Your task to perform on an android device: set the timer Image 0: 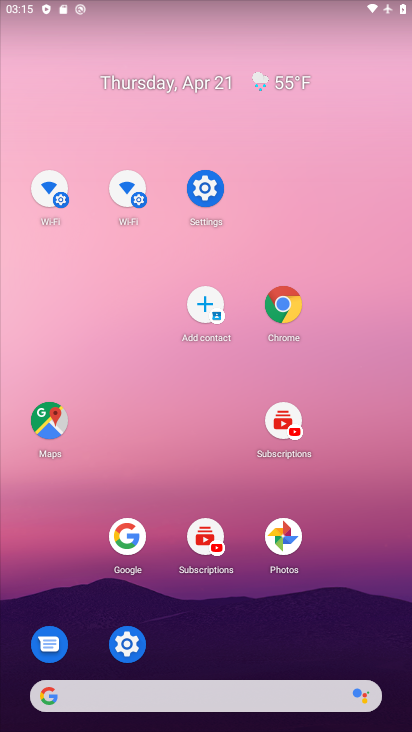
Step 0: drag from (303, 656) to (123, 137)
Your task to perform on an android device: set the timer Image 1: 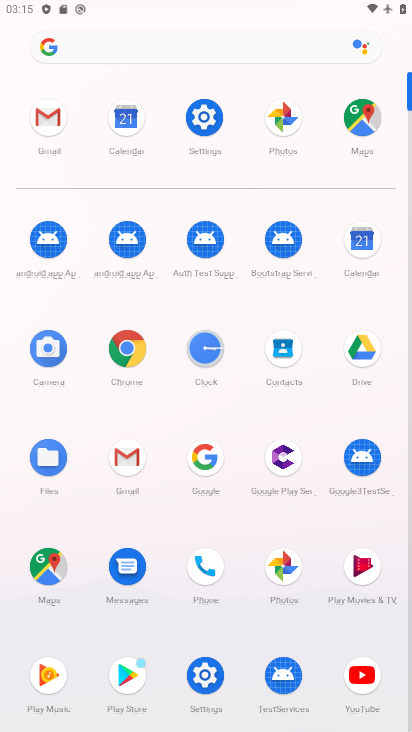
Step 1: click (199, 343)
Your task to perform on an android device: set the timer Image 2: 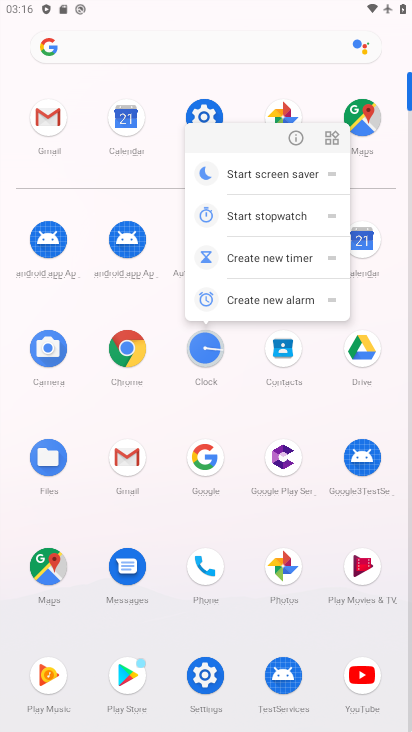
Step 2: click (205, 345)
Your task to perform on an android device: set the timer Image 3: 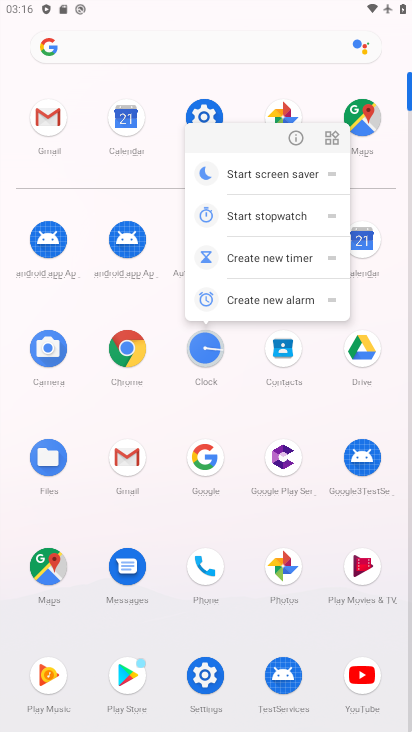
Step 3: click (211, 343)
Your task to perform on an android device: set the timer Image 4: 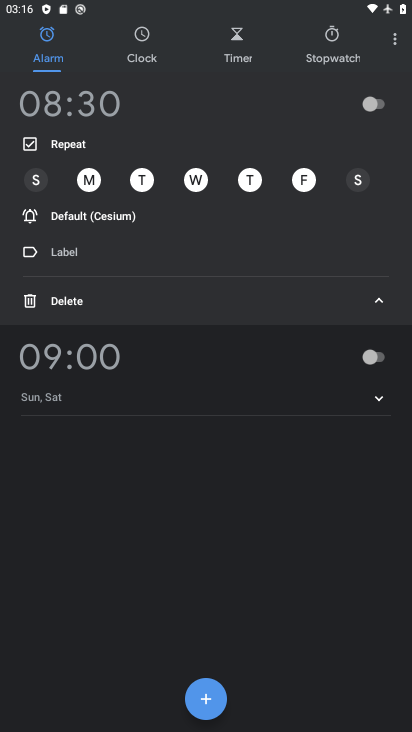
Step 4: drag from (243, 460) to (251, 523)
Your task to perform on an android device: set the timer Image 5: 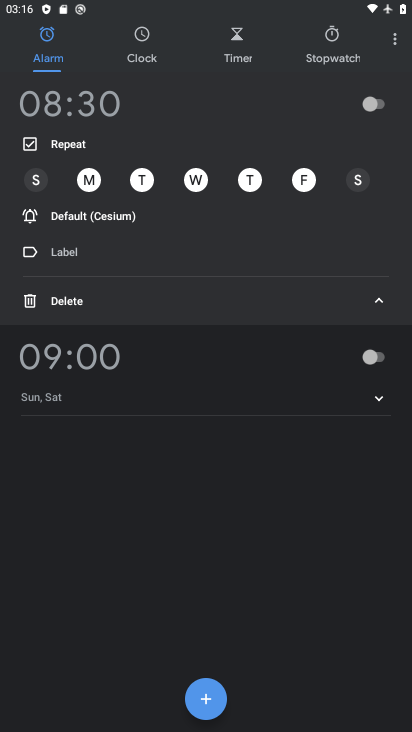
Step 5: click (236, 55)
Your task to perform on an android device: set the timer Image 6: 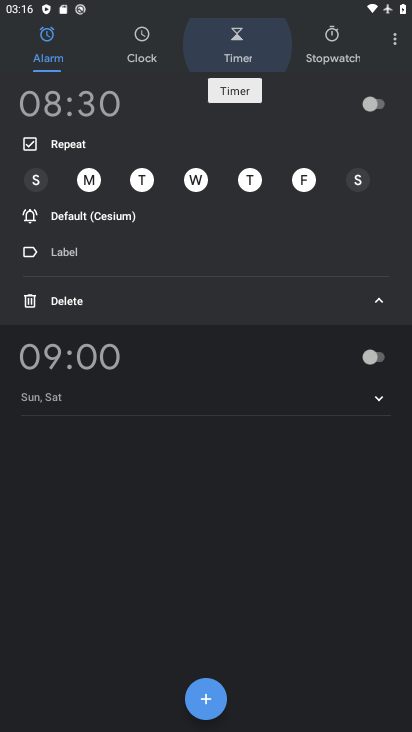
Step 6: click (236, 55)
Your task to perform on an android device: set the timer Image 7: 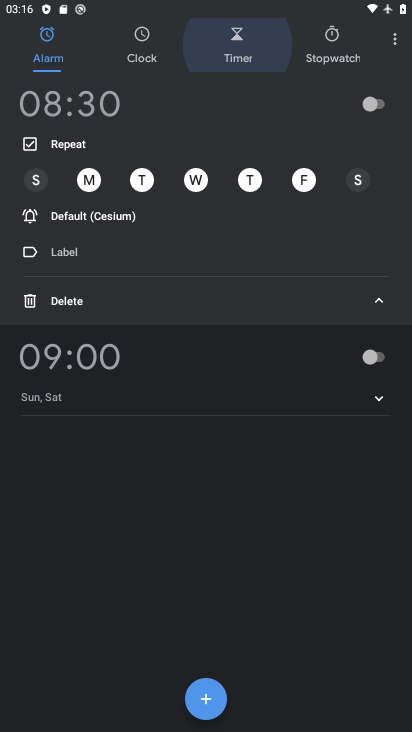
Step 7: click (236, 55)
Your task to perform on an android device: set the timer Image 8: 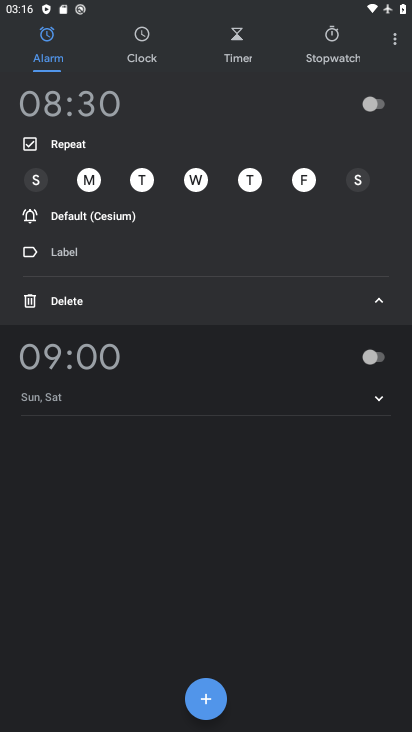
Step 8: drag from (241, 50) to (292, 516)
Your task to perform on an android device: set the timer Image 9: 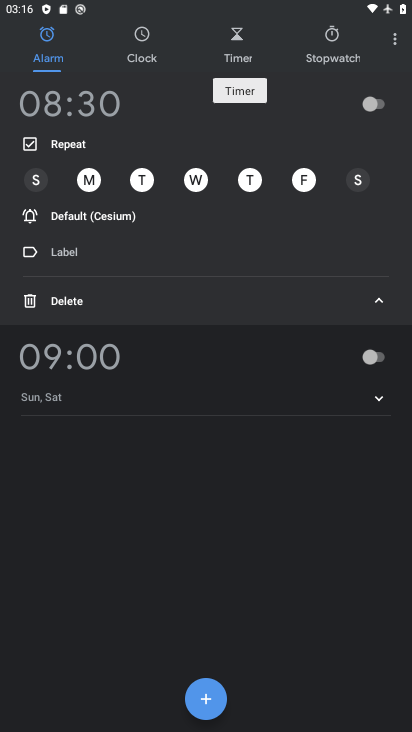
Step 9: click (230, 106)
Your task to perform on an android device: set the timer Image 10: 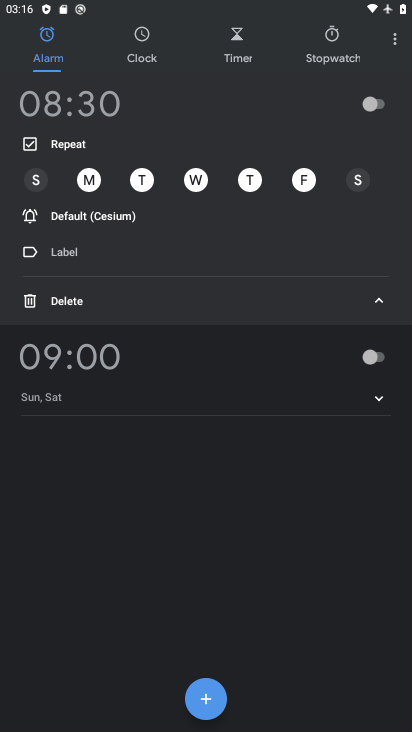
Step 10: click (241, 72)
Your task to perform on an android device: set the timer Image 11: 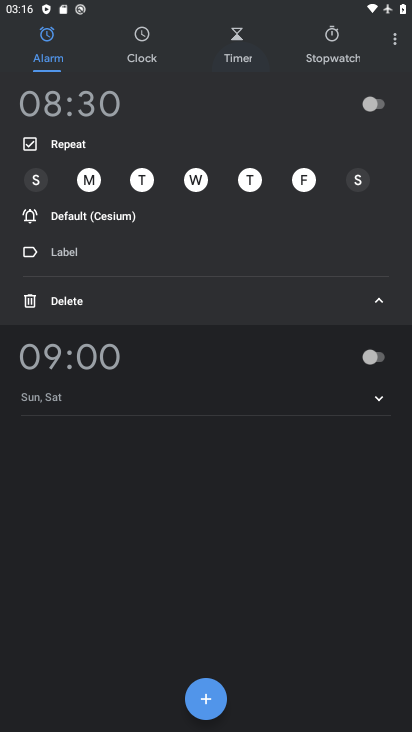
Step 11: click (241, 72)
Your task to perform on an android device: set the timer Image 12: 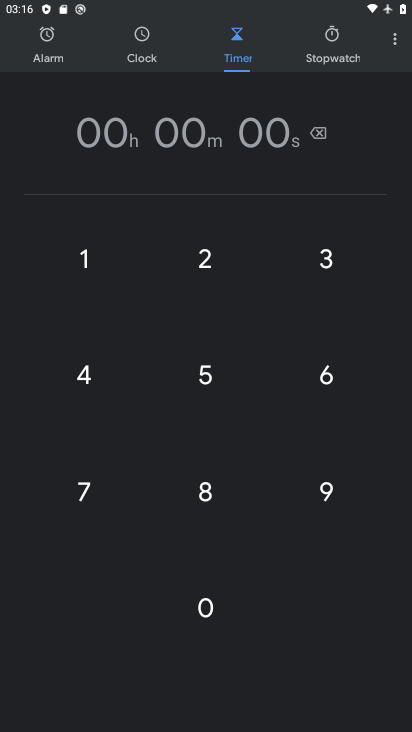
Step 12: click (202, 490)
Your task to perform on an android device: set the timer Image 13: 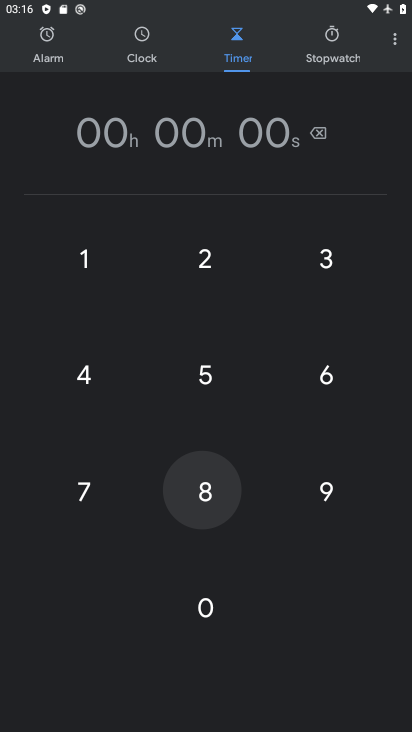
Step 13: click (204, 490)
Your task to perform on an android device: set the timer Image 14: 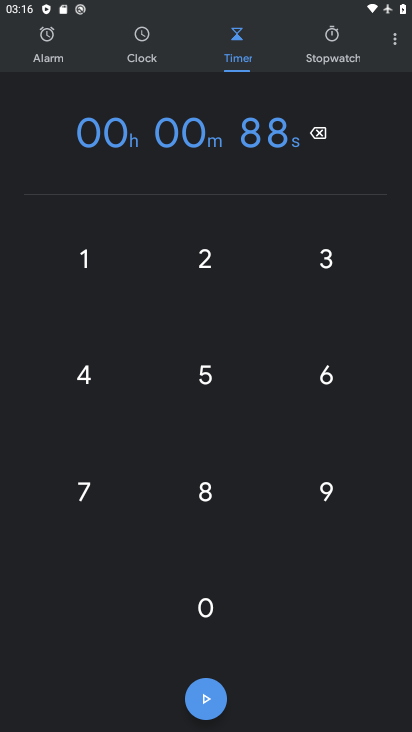
Step 14: click (204, 489)
Your task to perform on an android device: set the timer Image 15: 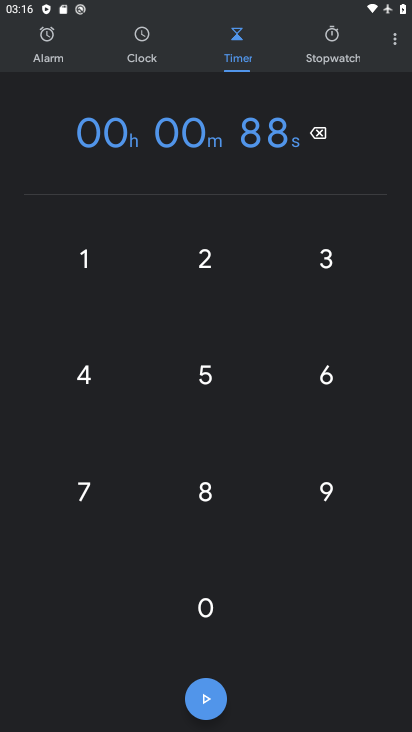
Step 15: click (204, 489)
Your task to perform on an android device: set the timer Image 16: 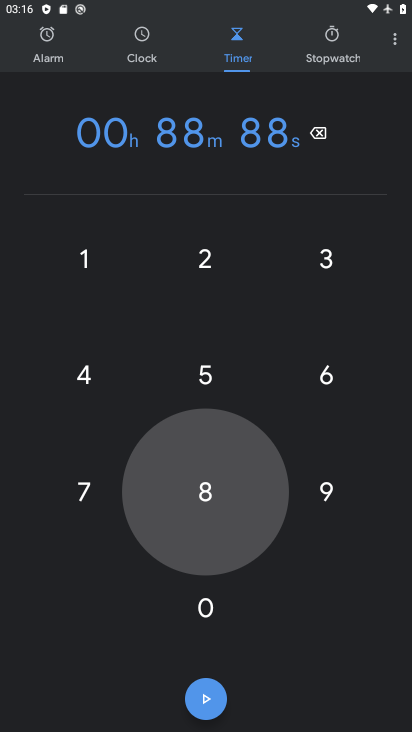
Step 16: click (204, 489)
Your task to perform on an android device: set the timer Image 17: 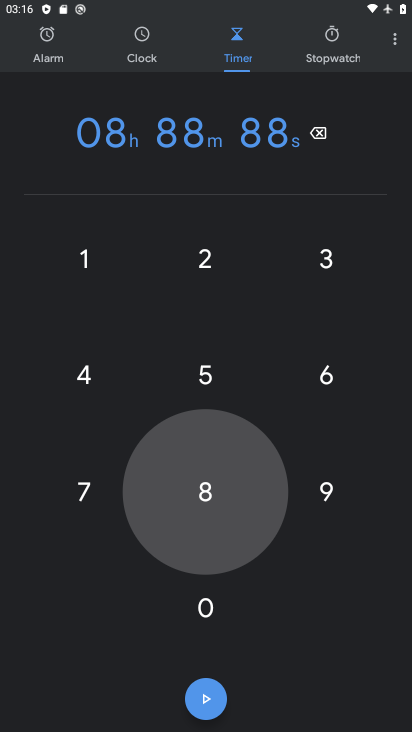
Step 17: click (203, 490)
Your task to perform on an android device: set the timer Image 18: 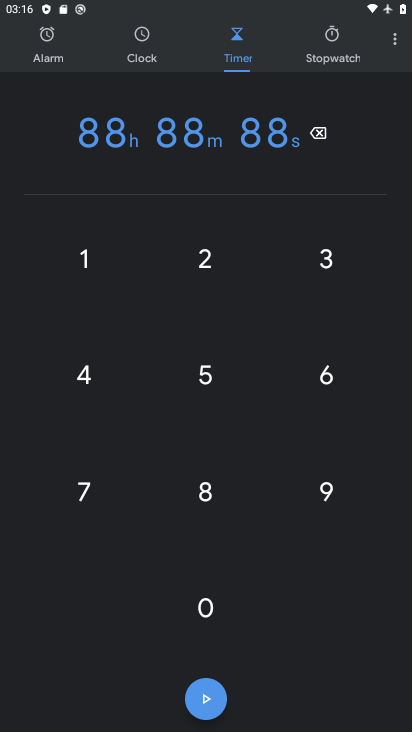
Step 18: click (212, 697)
Your task to perform on an android device: set the timer Image 19: 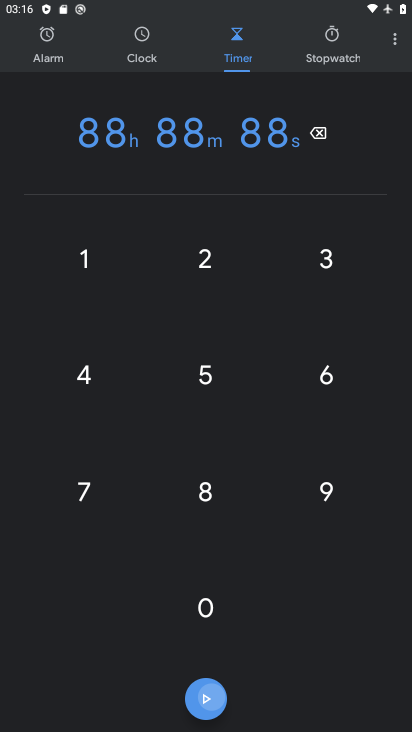
Step 19: click (226, 693)
Your task to perform on an android device: set the timer Image 20: 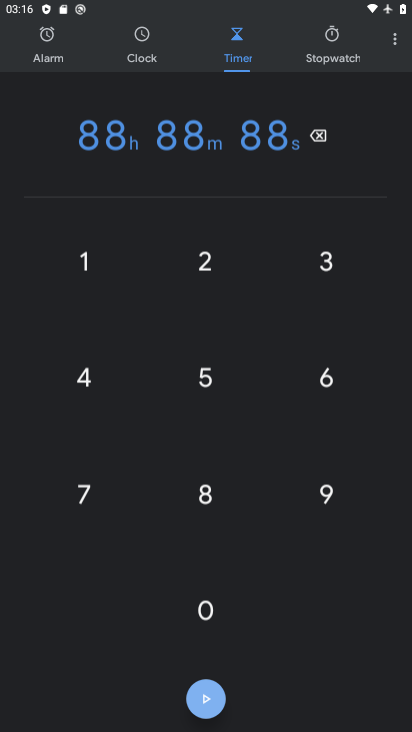
Step 20: click (223, 696)
Your task to perform on an android device: set the timer Image 21: 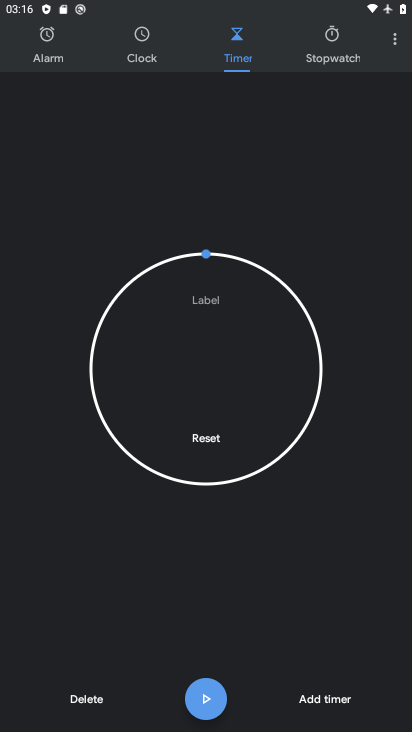
Step 21: click (209, 691)
Your task to perform on an android device: set the timer Image 22: 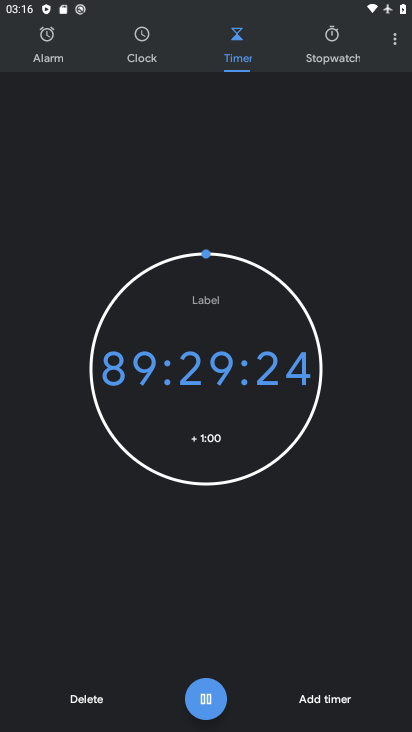
Step 22: click (205, 701)
Your task to perform on an android device: set the timer Image 23: 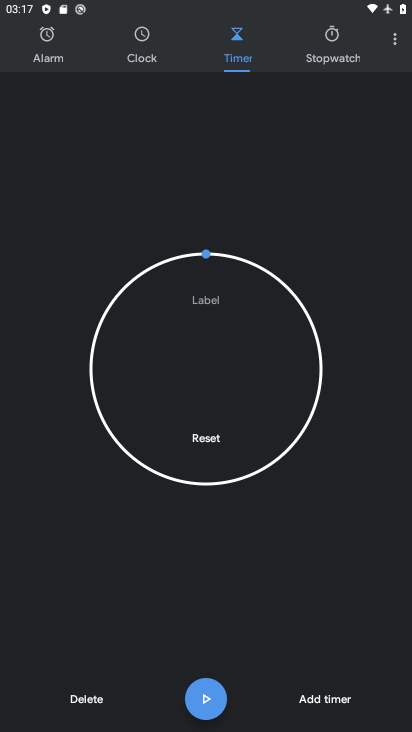
Step 23: task complete